Your task to perform on an android device: Open the Play Movies app and select the watchlist tab. Image 0: 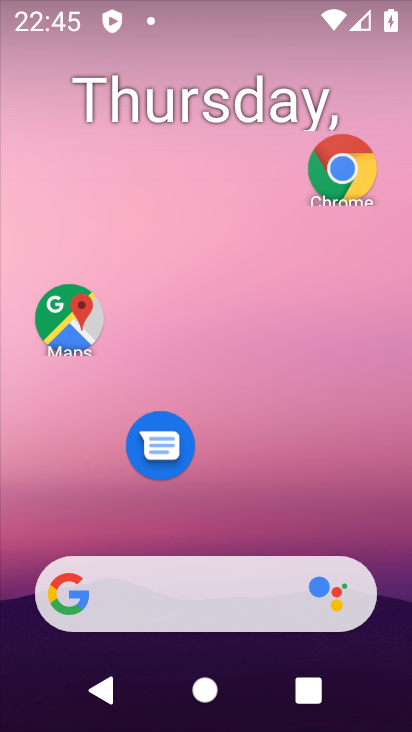
Step 0: drag from (247, 516) to (177, 129)
Your task to perform on an android device: Open the Play Movies app and select the watchlist tab. Image 1: 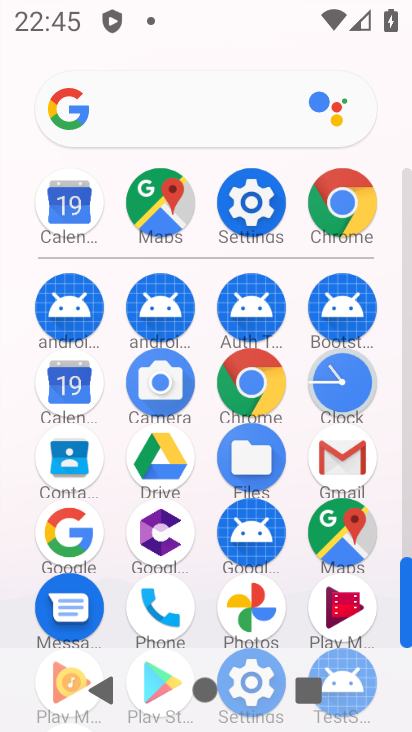
Step 1: drag from (204, 570) to (168, 202)
Your task to perform on an android device: Open the Play Movies app and select the watchlist tab. Image 2: 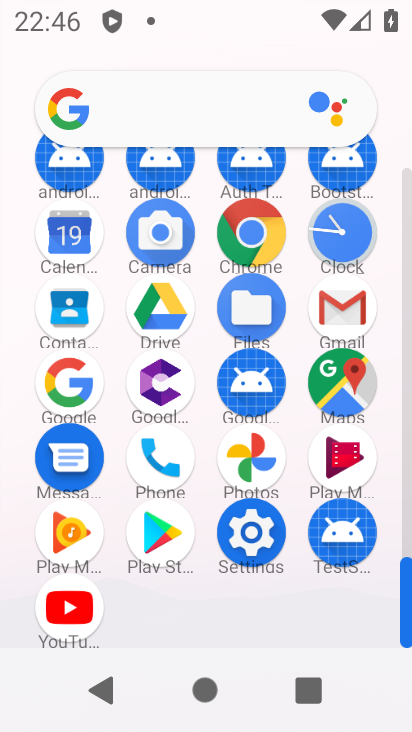
Step 2: click (324, 474)
Your task to perform on an android device: Open the Play Movies app and select the watchlist tab. Image 3: 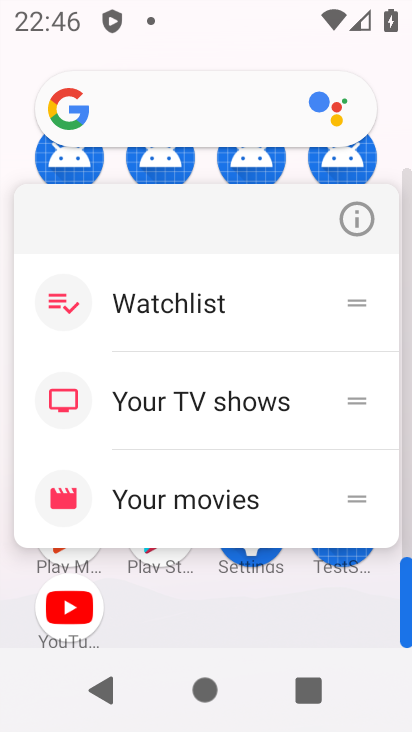
Step 3: click (353, 240)
Your task to perform on an android device: Open the Play Movies app and select the watchlist tab. Image 4: 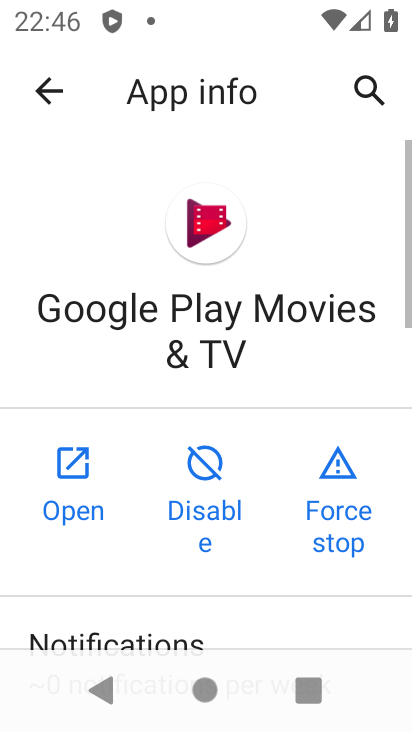
Step 4: click (61, 499)
Your task to perform on an android device: Open the Play Movies app and select the watchlist tab. Image 5: 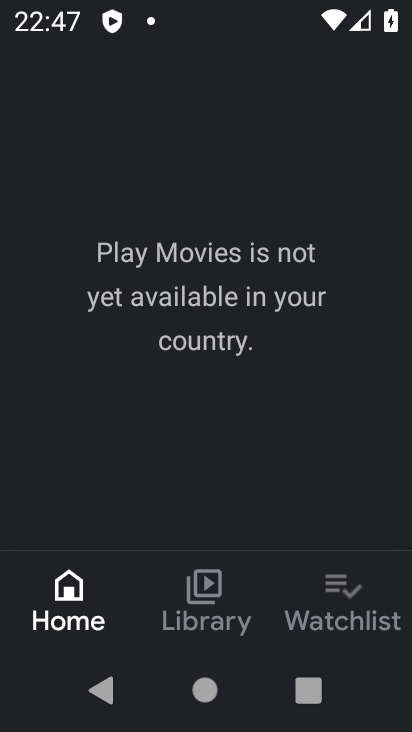
Step 5: click (329, 584)
Your task to perform on an android device: Open the Play Movies app and select the watchlist tab. Image 6: 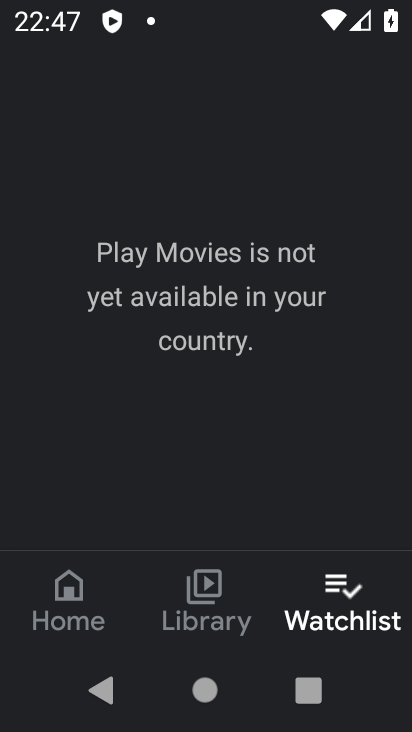
Step 6: task complete